Your task to perform on an android device: check battery use Image 0: 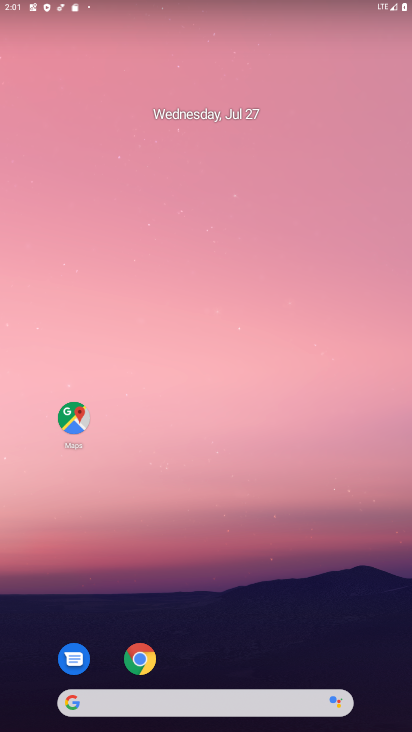
Step 0: drag from (237, 721) to (240, 89)
Your task to perform on an android device: check battery use Image 1: 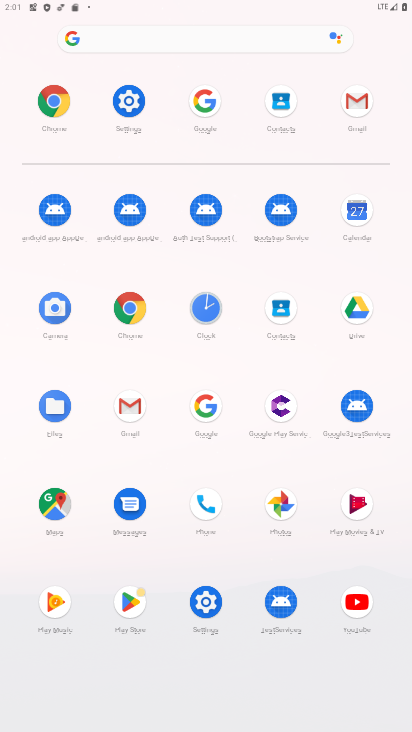
Step 1: click (126, 105)
Your task to perform on an android device: check battery use Image 2: 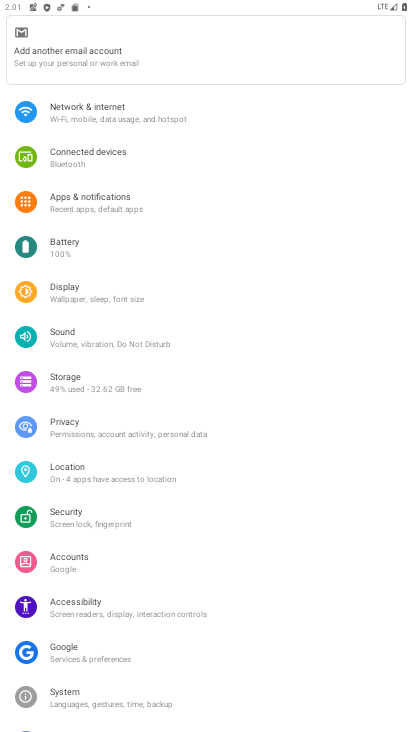
Step 2: click (58, 242)
Your task to perform on an android device: check battery use Image 3: 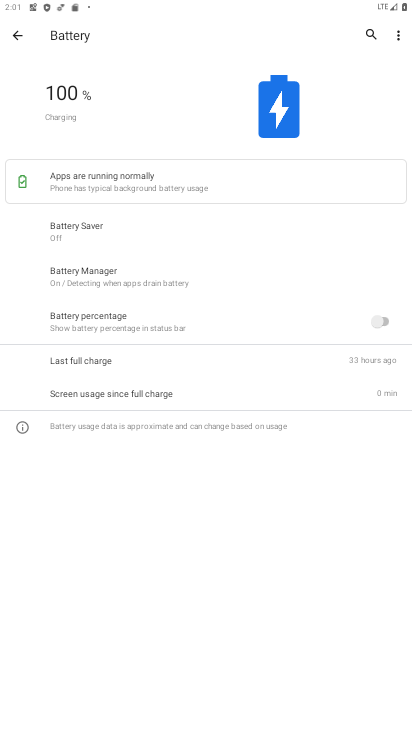
Step 3: click (400, 38)
Your task to perform on an android device: check battery use Image 4: 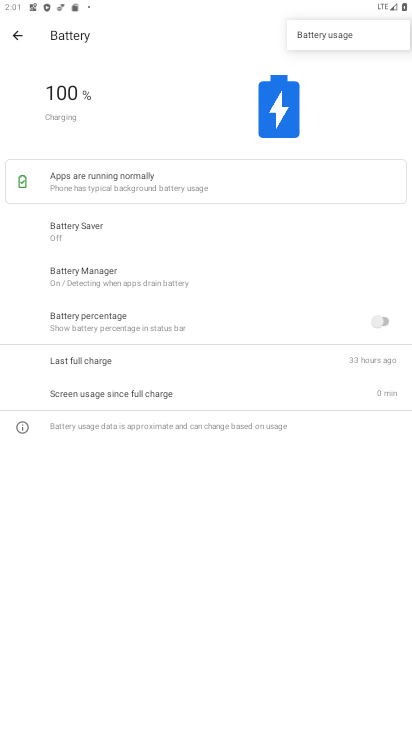
Step 4: click (352, 29)
Your task to perform on an android device: check battery use Image 5: 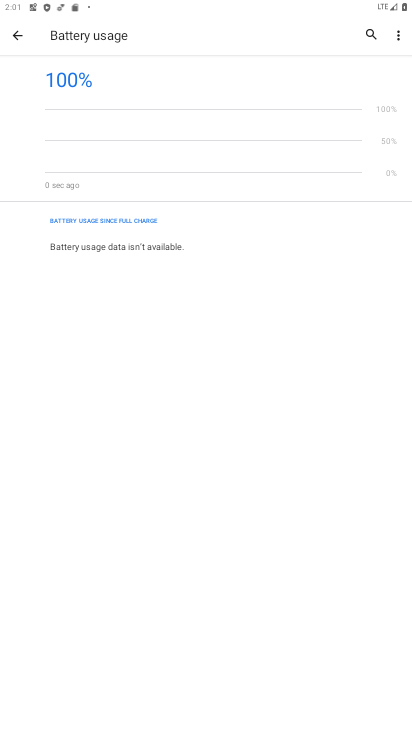
Step 5: task complete